Your task to perform on an android device: Open Android settings Image 0: 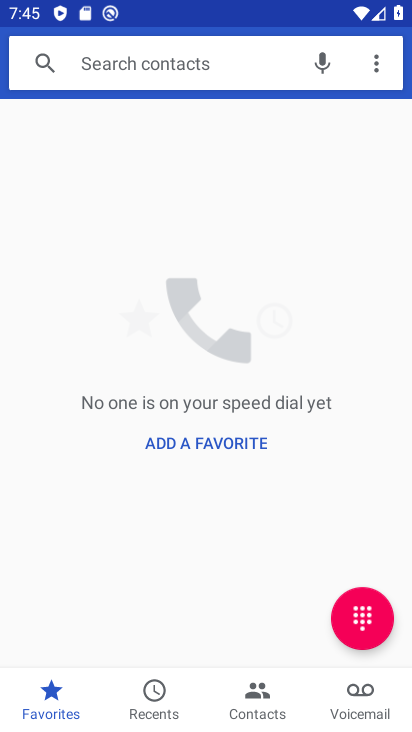
Step 0: press home button
Your task to perform on an android device: Open Android settings Image 1: 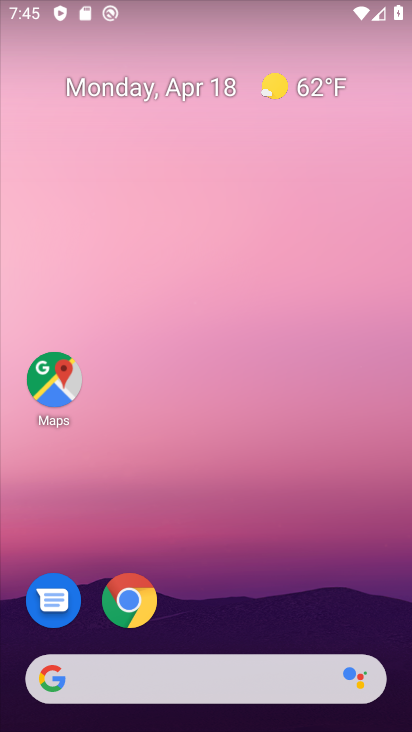
Step 1: drag from (209, 637) to (208, 63)
Your task to perform on an android device: Open Android settings Image 2: 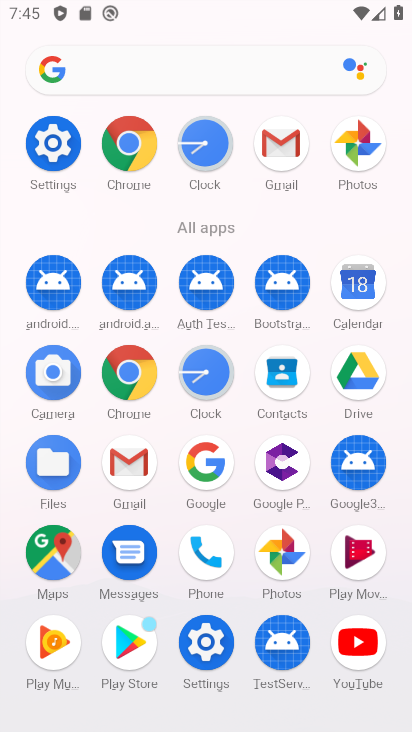
Step 2: click (48, 144)
Your task to perform on an android device: Open Android settings Image 3: 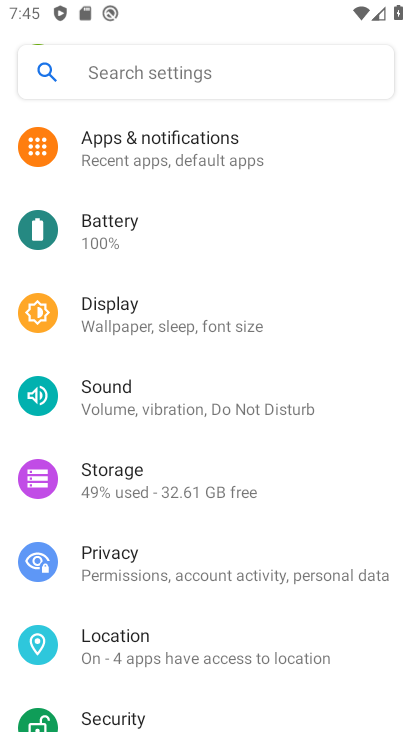
Step 3: click (155, 77)
Your task to perform on an android device: Open Android settings Image 4: 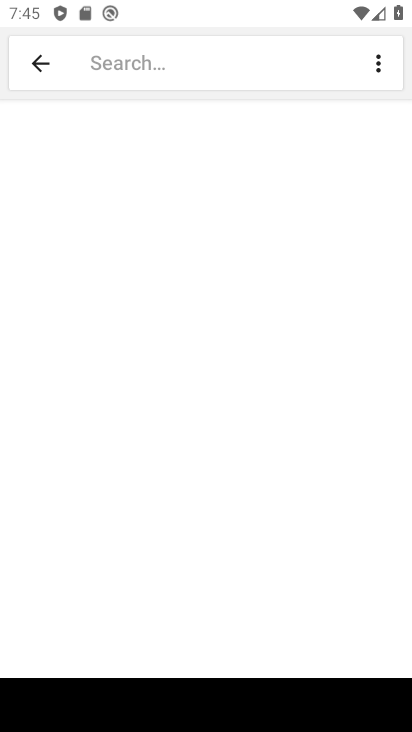
Step 4: type "android setting"
Your task to perform on an android device: Open Android settings Image 5: 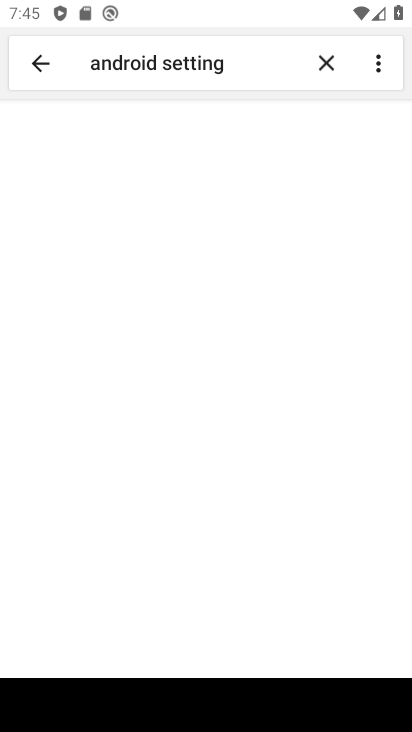
Step 5: click (39, 75)
Your task to perform on an android device: Open Android settings Image 6: 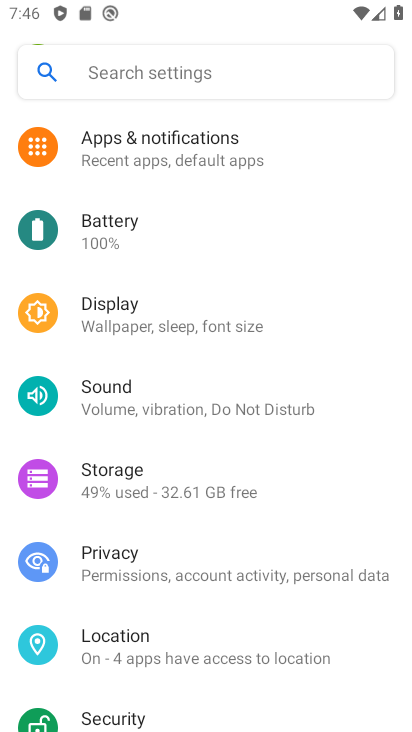
Step 6: task complete